Your task to perform on an android device: choose inbox layout in the gmail app Image 0: 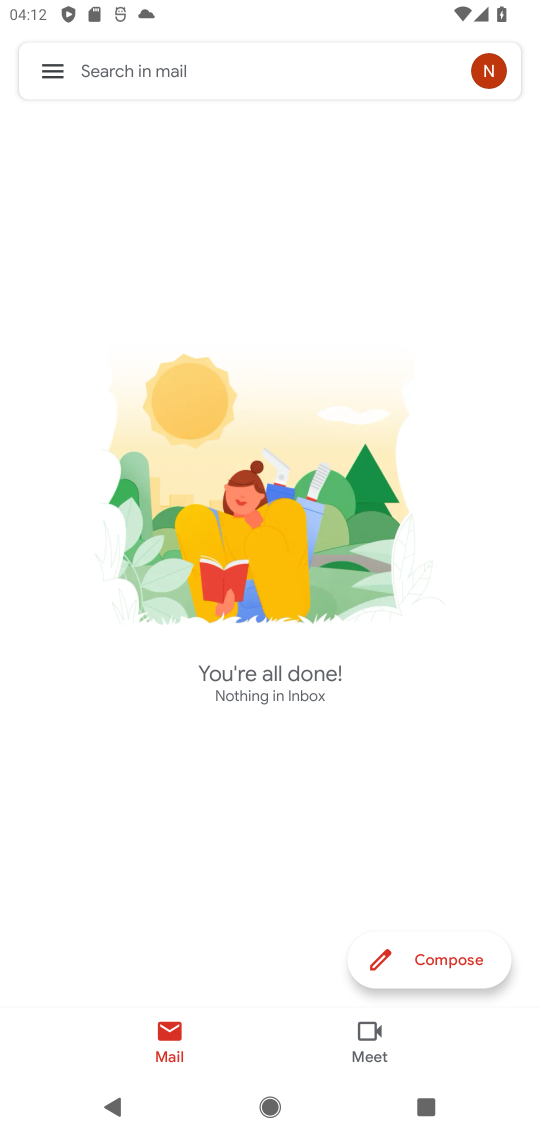
Step 0: press home button
Your task to perform on an android device: choose inbox layout in the gmail app Image 1: 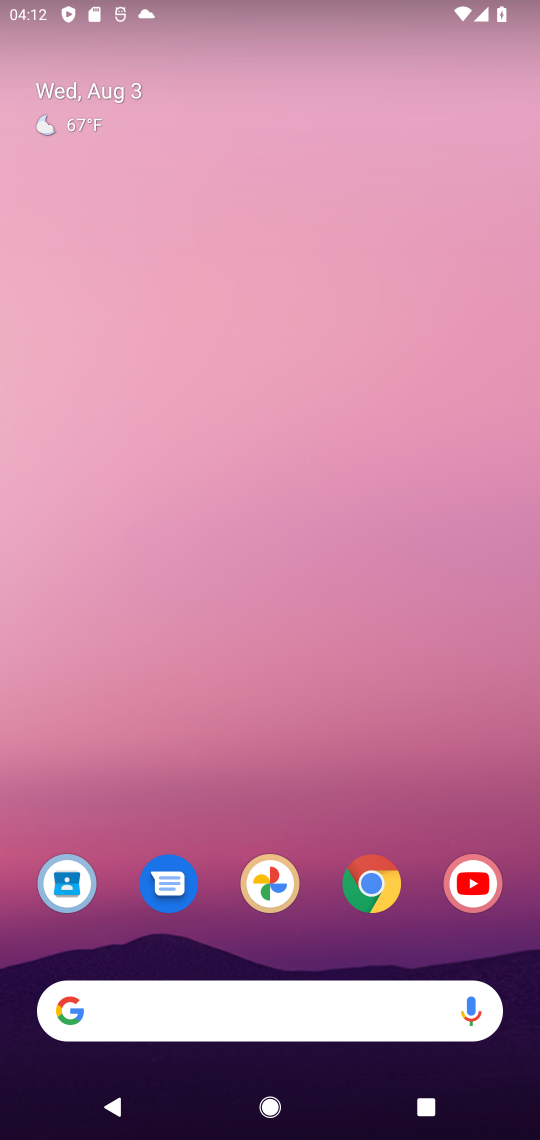
Step 1: drag from (317, 756) to (144, 0)
Your task to perform on an android device: choose inbox layout in the gmail app Image 2: 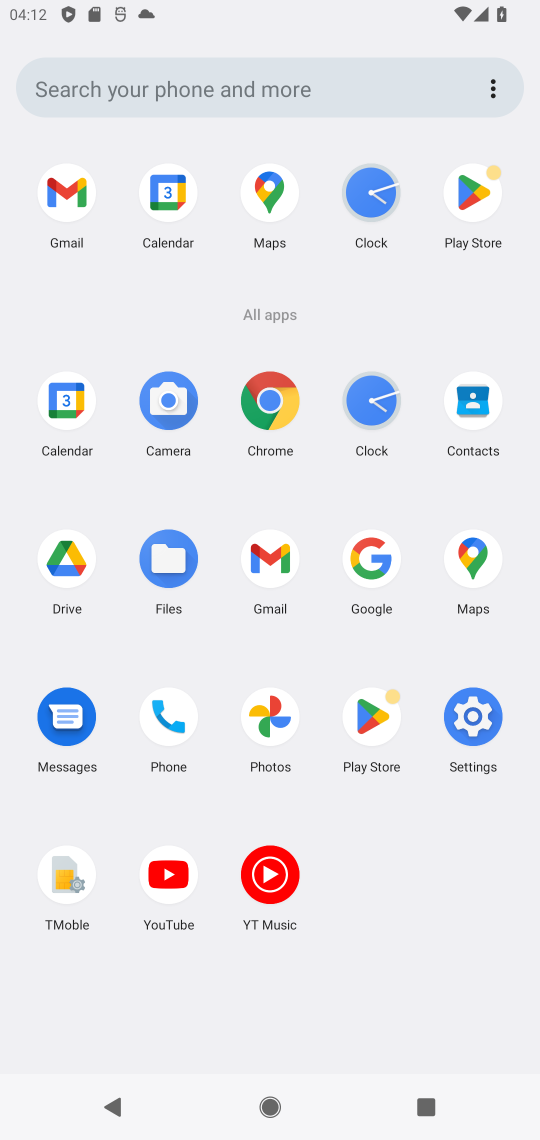
Step 2: click (275, 585)
Your task to perform on an android device: choose inbox layout in the gmail app Image 3: 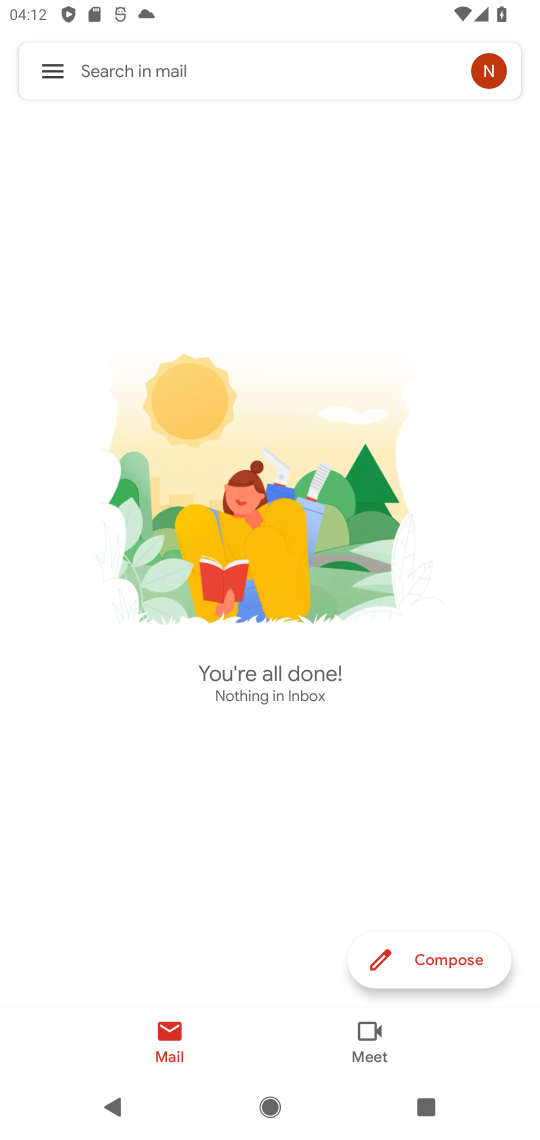
Step 3: click (58, 70)
Your task to perform on an android device: choose inbox layout in the gmail app Image 4: 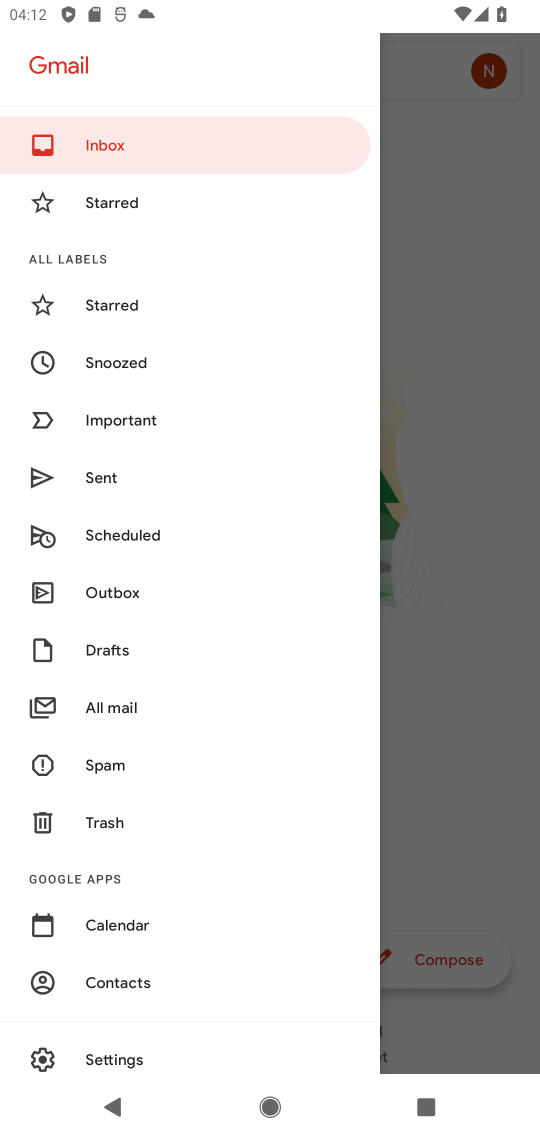
Step 4: drag from (109, 963) to (226, 248)
Your task to perform on an android device: choose inbox layout in the gmail app Image 5: 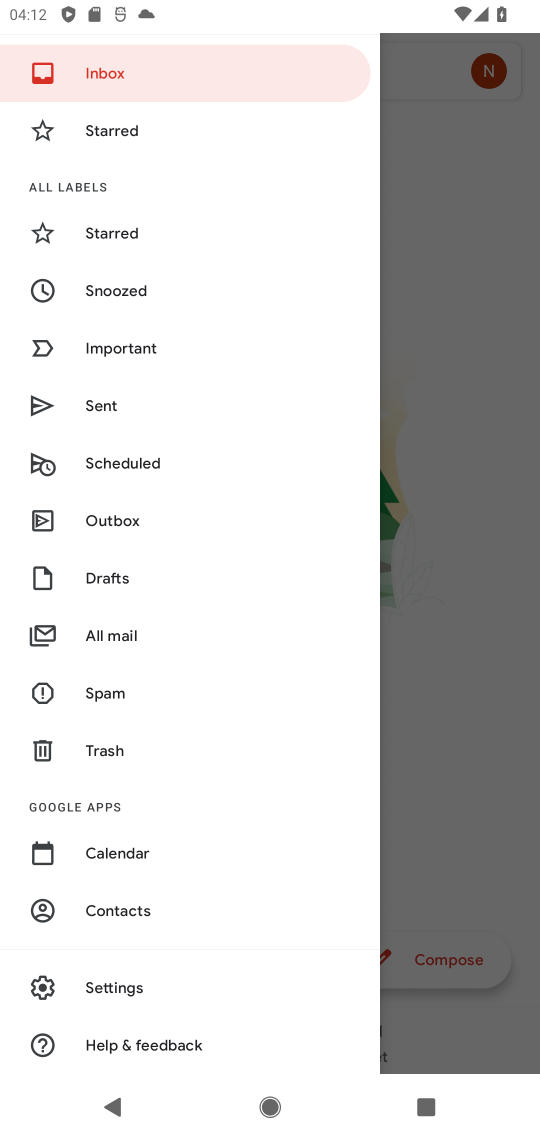
Step 5: click (132, 992)
Your task to perform on an android device: choose inbox layout in the gmail app Image 6: 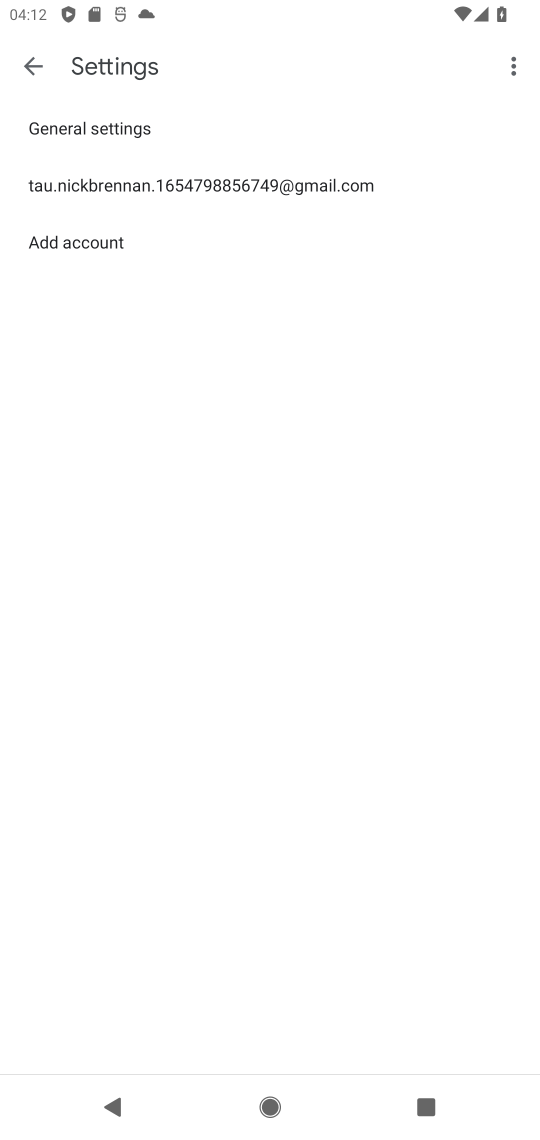
Step 6: click (174, 177)
Your task to perform on an android device: choose inbox layout in the gmail app Image 7: 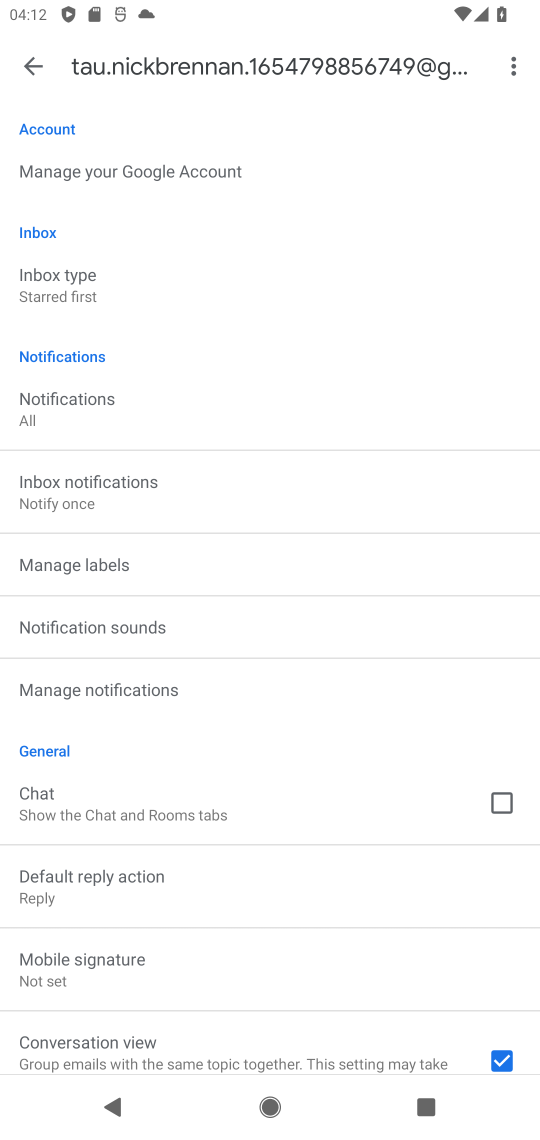
Step 7: click (83, 287)
Your task to perform on an android device: choose inbox layout in the gmail app Image 8: 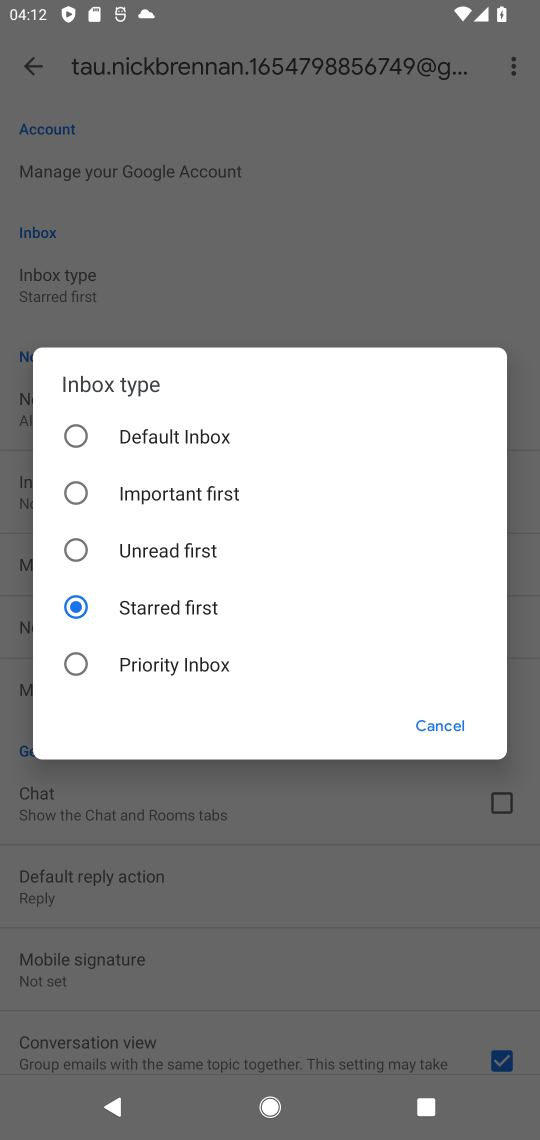
Step 8: click (217, 434)
Your task to perform on an android device: choose inbox layout in the gmail app Image 9: 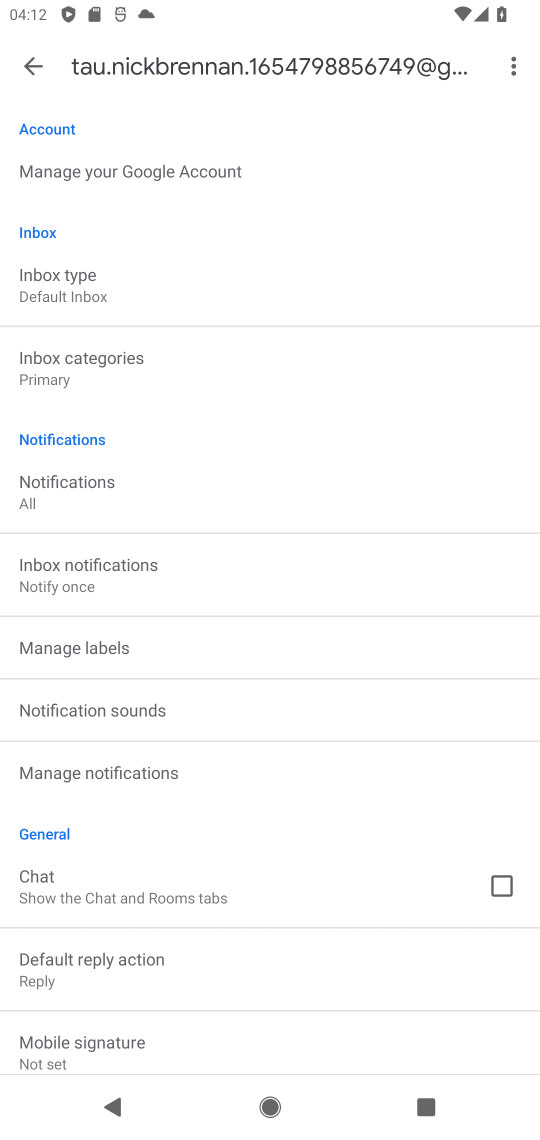
Step 9: task complete